Your task to perform on an android device: Go to internet settings Image 0: 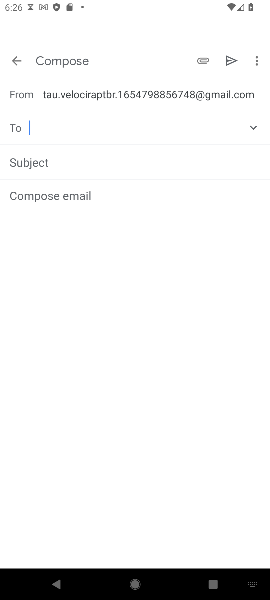
Step 0: press home button
Your task to perform on an android device: Go to internet settings Image 1: 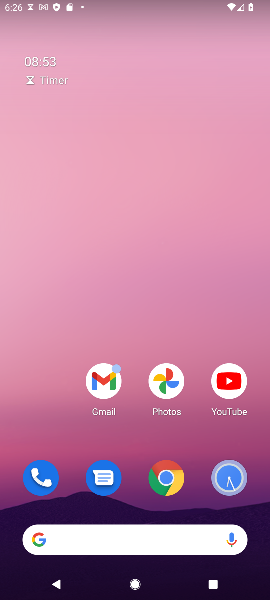
Step 1: drag from (137, 504) to (150, 78)
Your task to perform on an android device: Go to internet settings Image 2: 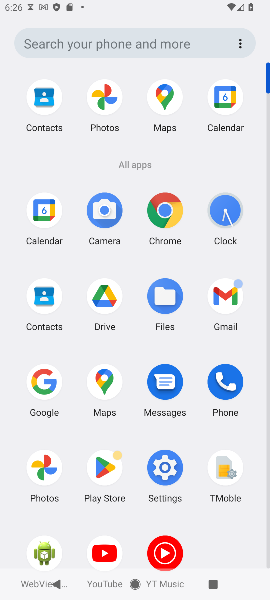
Step 2: click (165, 481)
Your task to perform on an android device: Go to internet settings Image 3: 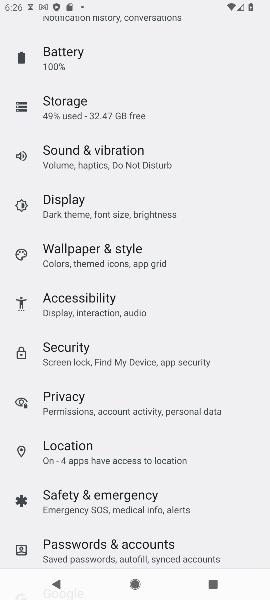
Step 3: drag from (157, 121) to (128, 445)
Your task to perform on an android device: Go to internet settings Image 4: 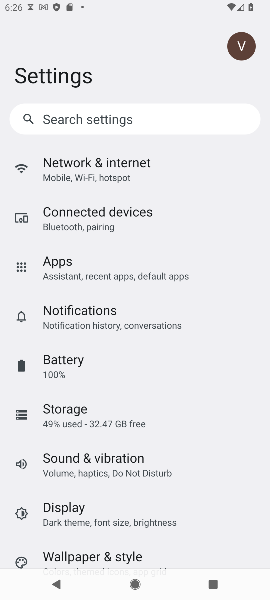
Step 4: click (107, 173)
Your task to perform on an android device: Go to internet settings Image 5: 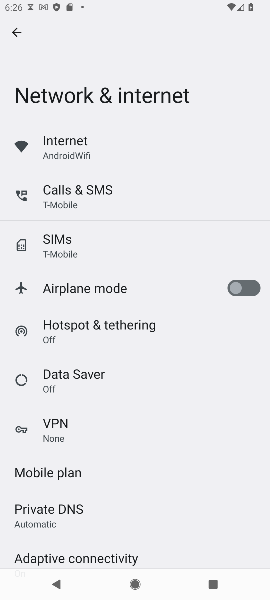
Step 5: click (77, 138)
Your task to perform on an android device: Go to internet settings Image 6: 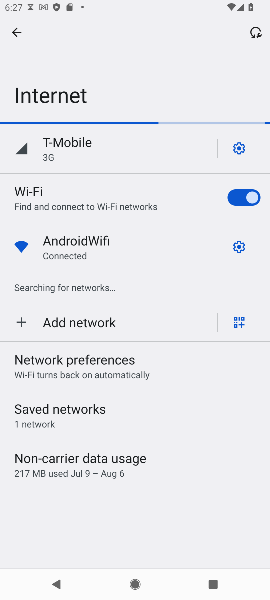
Step 6: task complete